Your task to perform on an android device: Open Google Image 0: 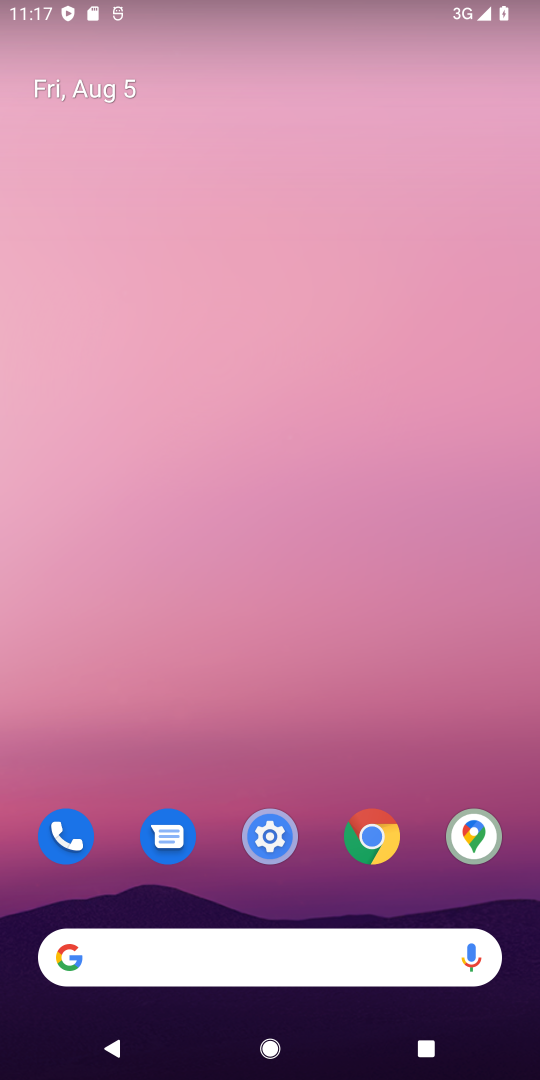
Step 0: drag from (319, 845) to (330, 60)
Your task to perform on an android device: Open Google Image 1: 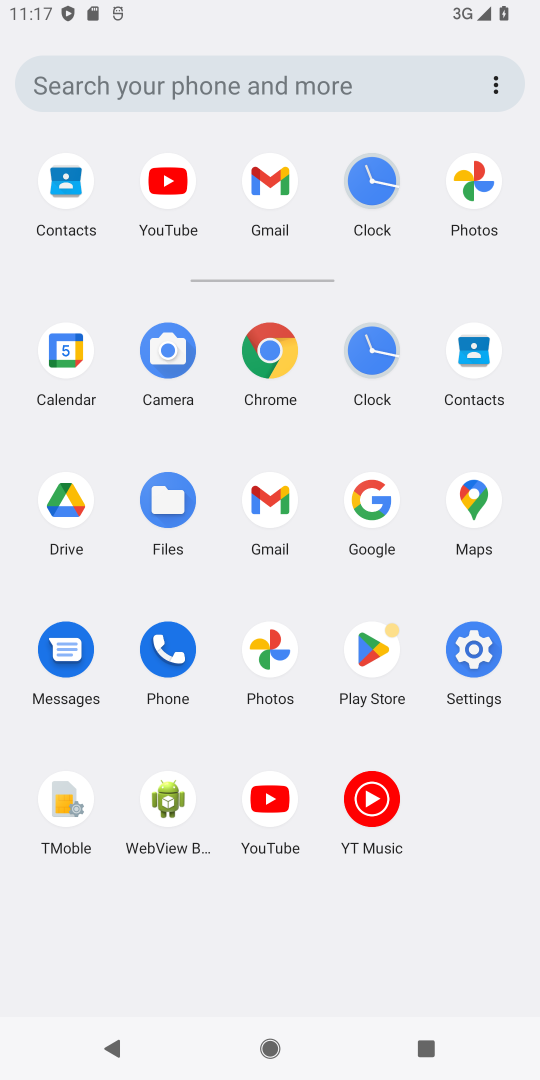
Step 1: click (371, 499)
Your task to perform on an android device: Open Google Image 2: 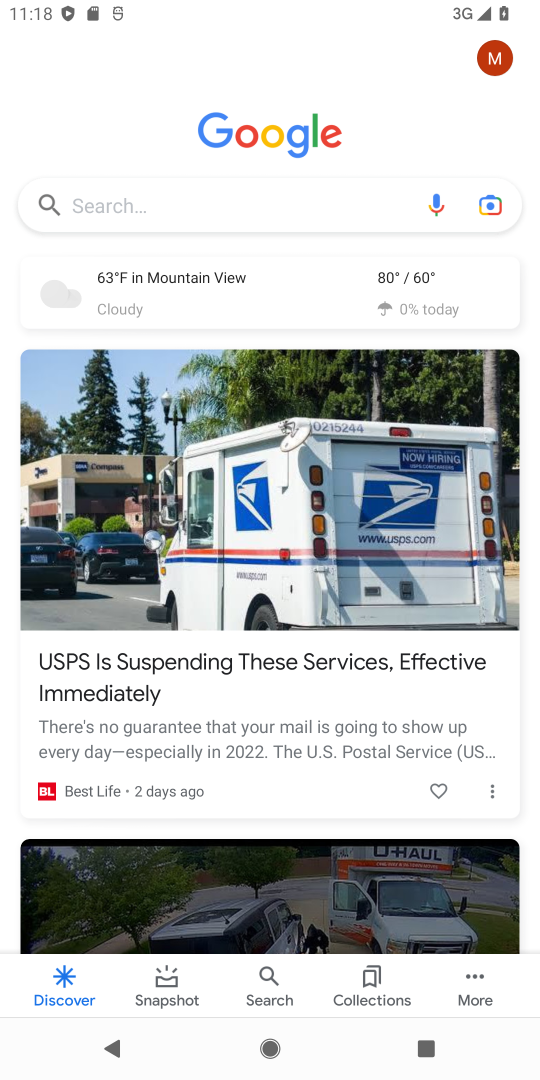
Step 2: task complete